Your task to perform on an android device: uninstall "Life360: Find Family & Friends" Image 0: 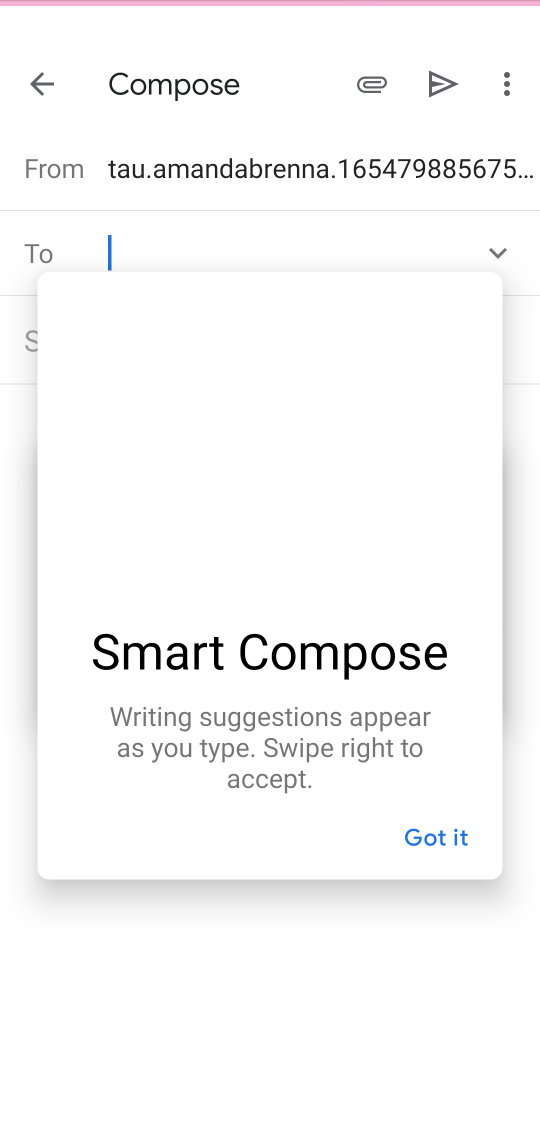
Step 0: press home button
Your task to perform on an android device: uninstall "Life360: Find Family & Friends" Image 1: 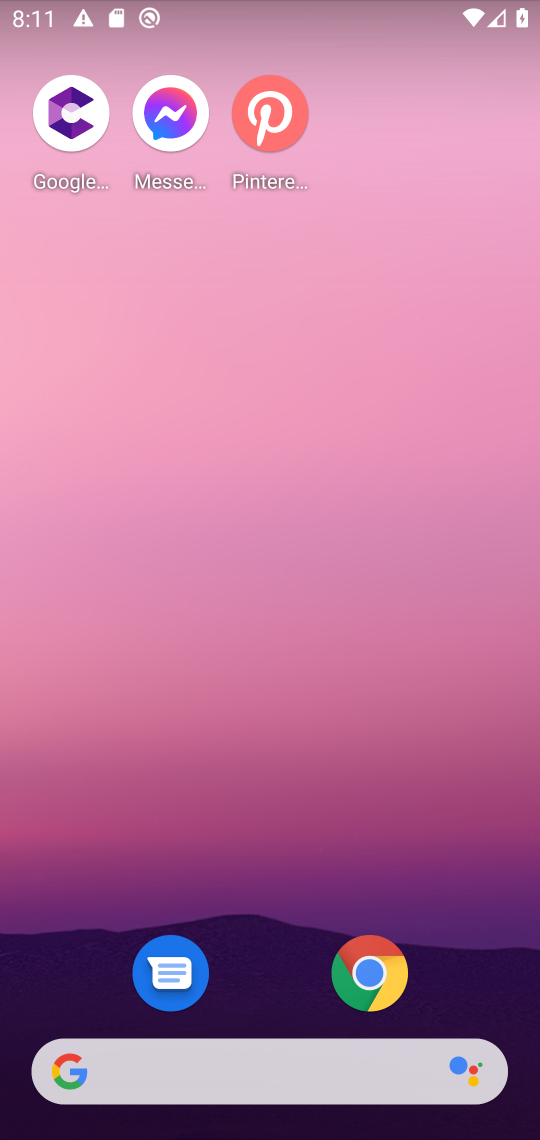
Step 1: drag from (317, 1060) to (342, 156)
Your task to perform on an android device: uninstall "Life360: Find Family & Friends" Image 2: 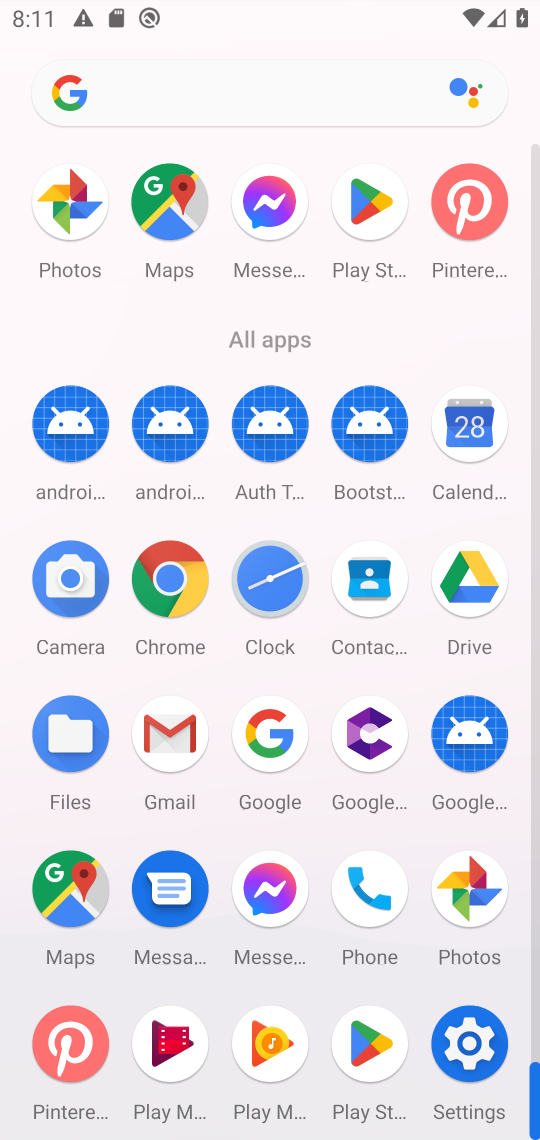
Step 2: click (369, 252)
Your task to perform on an android device: uninstall "Life360: Find Family & Friends" Image 3: 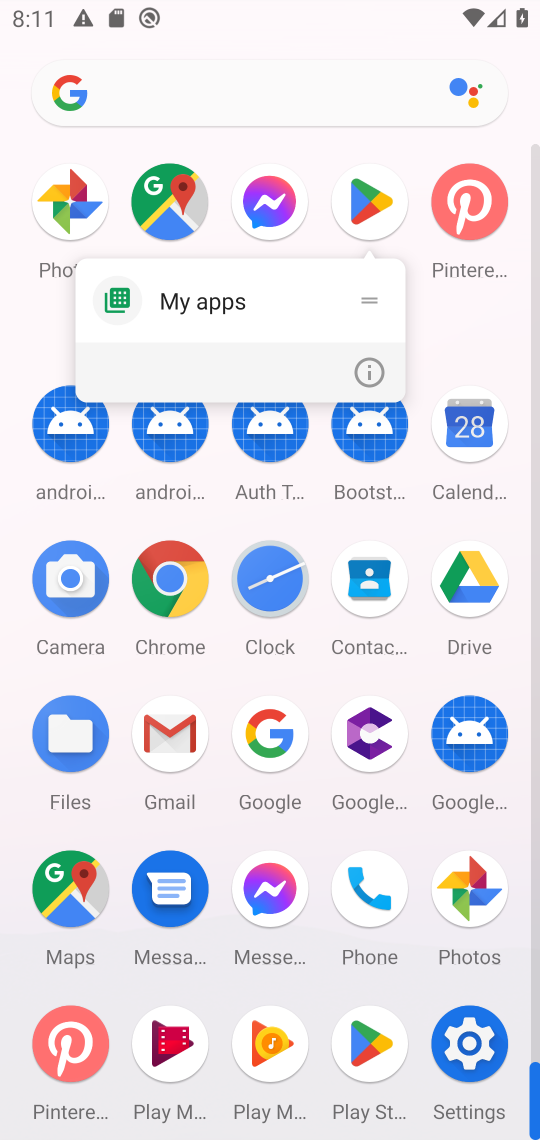
Step 3: click (378, 201)
Your task to perform on an android device: uninstall "Life360: Find Family & Friends" Image 4: 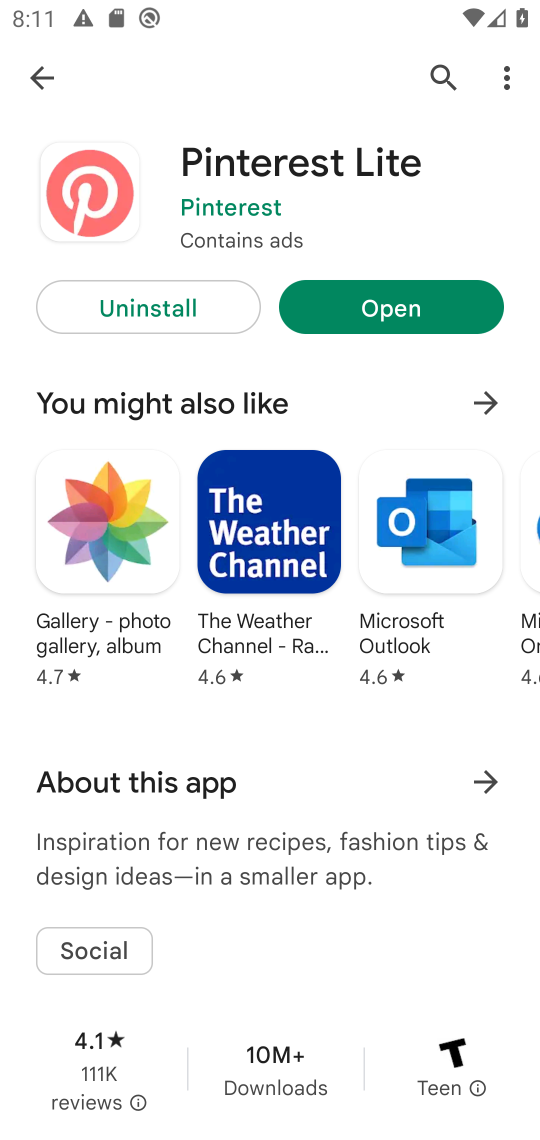
Step 4: click (32, 75)
Your task to perform on an android device: uninstall "Life360: Find Family & Friends" Image 5: 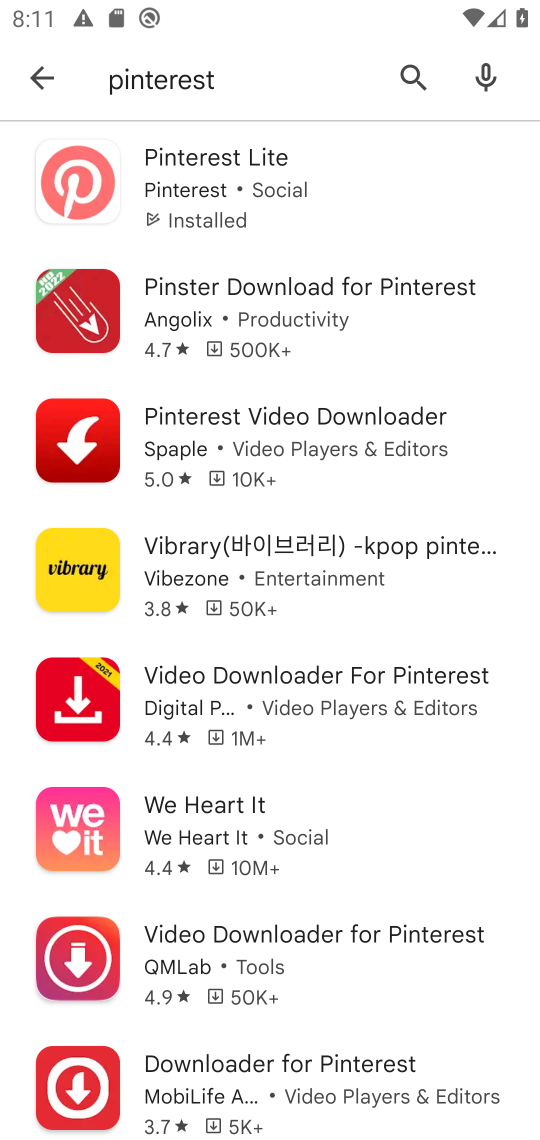
Step 5: click (42, 72)
Your task to perform on an android device: uninstall "Life360: Find Family & Friends" Image 6: 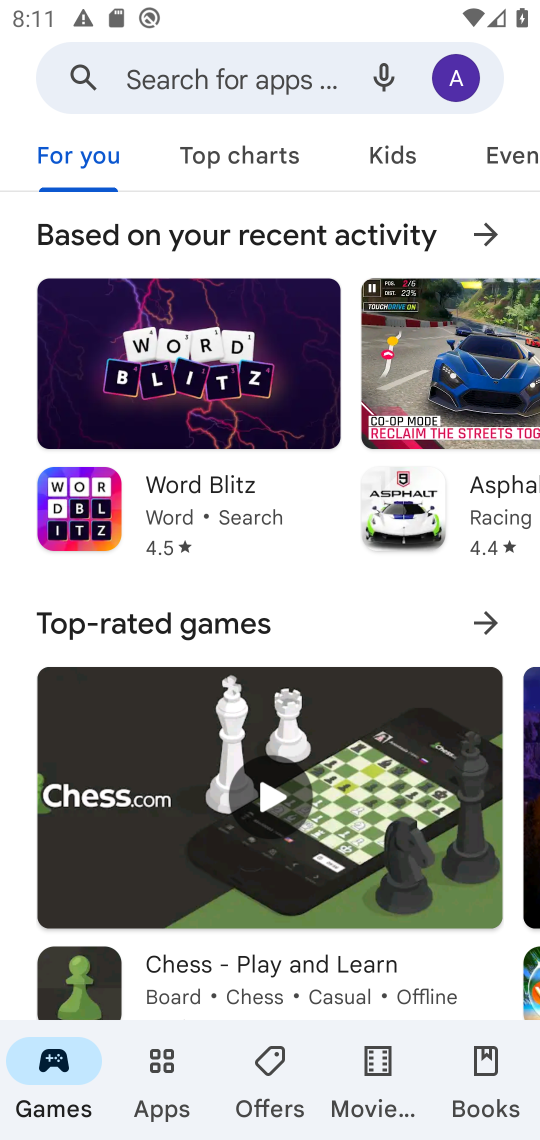
Step 6: click (224, 81)
Your task to perform on an android device: uninstall "Life360: Find Family & Friends" Image 7: 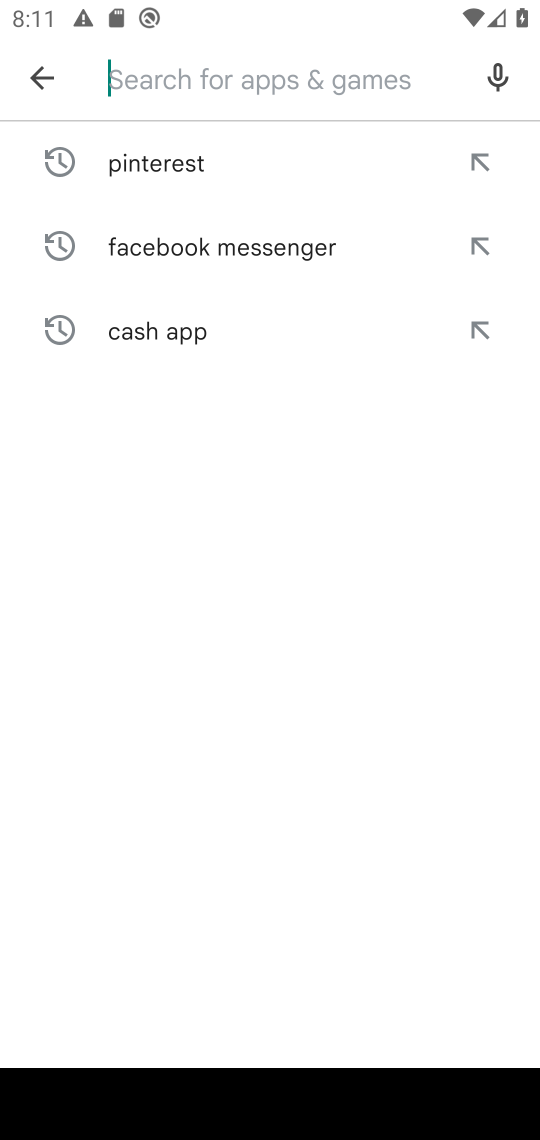
Step 7: type "Life360: Find Family & Friends"
Your task to perform on an android device: uninstall "Life360: Find Family & Friends" Image 8: 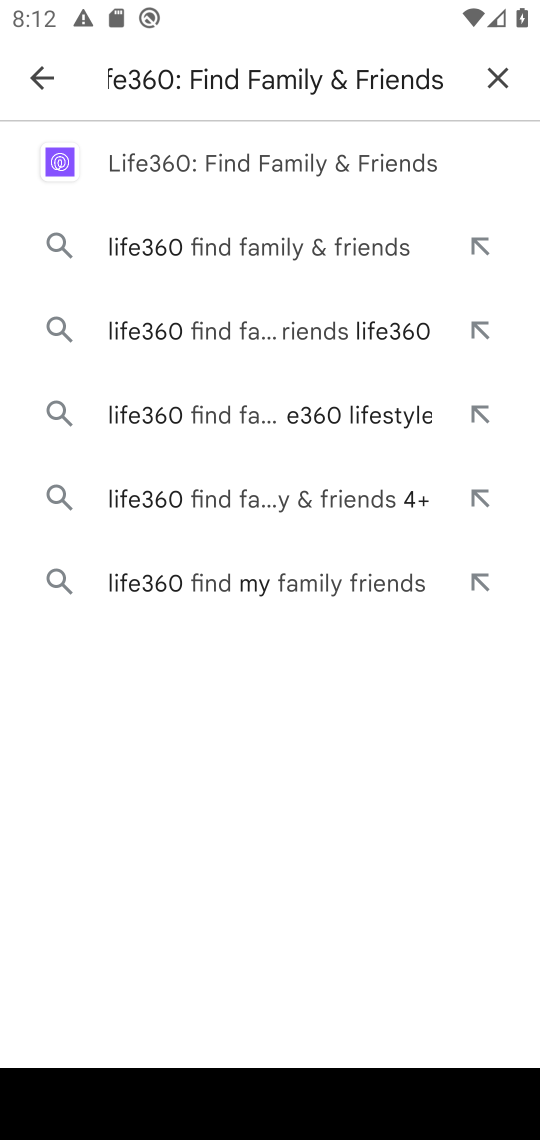
Step 8: click (295, 155)
Your task to perform on an android device: uninstall "Life360: Find Family & Friends" Image 9: 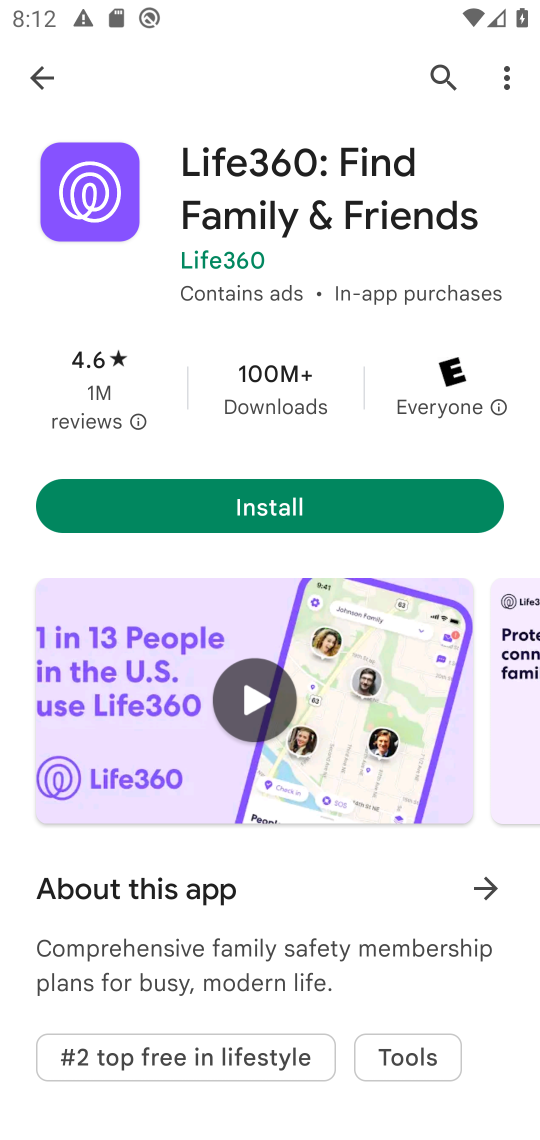
Step 9: task complete